Your task to perform on an android device: Go to CNN.com Image 0: 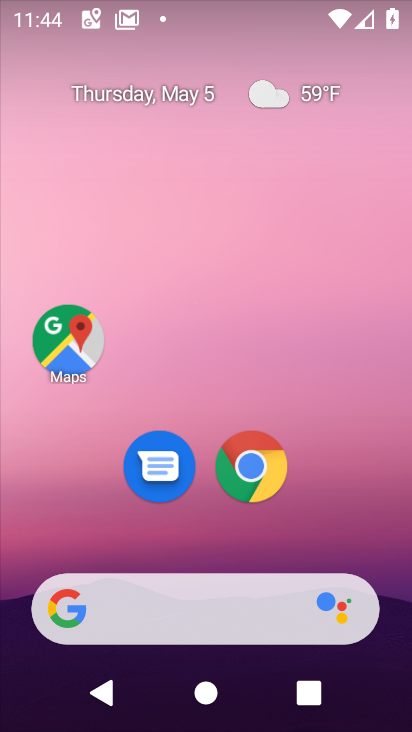
Step 0: click (264, 472)
Your task to perform on an android device: Go to CNN.com Image 1: 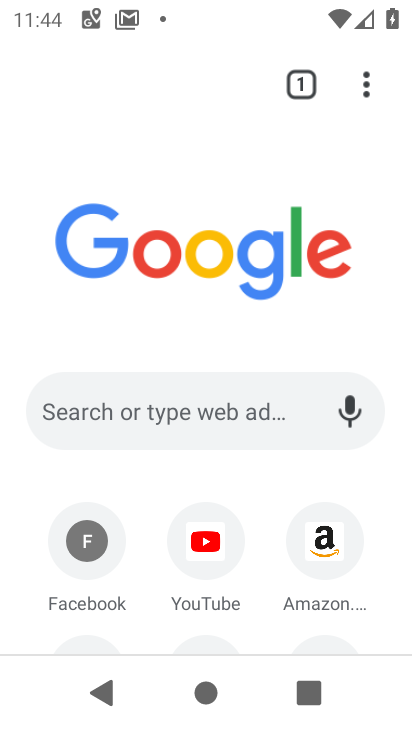
Step 1: click (214, 420)
Your task to perform on an android device: Go to CNN.com Image 2: 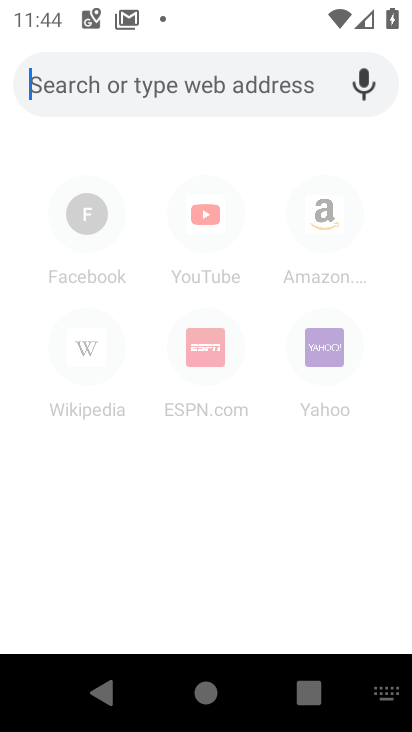
Step 2: type "CNN.com"
Your task to perform on an android device: Go to CNN.com Image 3: 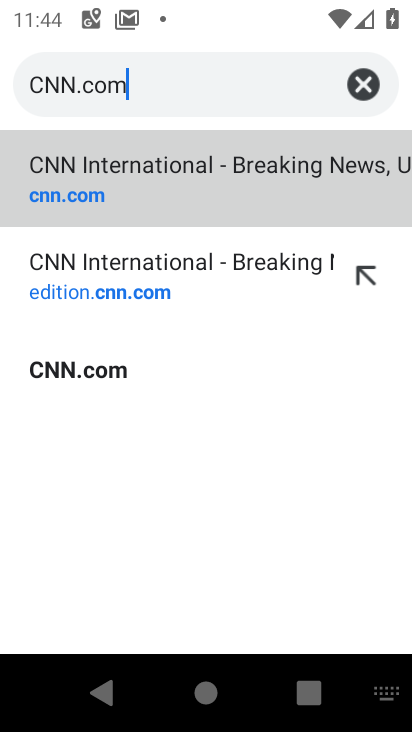
Step 3: click (76, 194)
Your task to perform on an android device: Go to CNN.com Image 4: 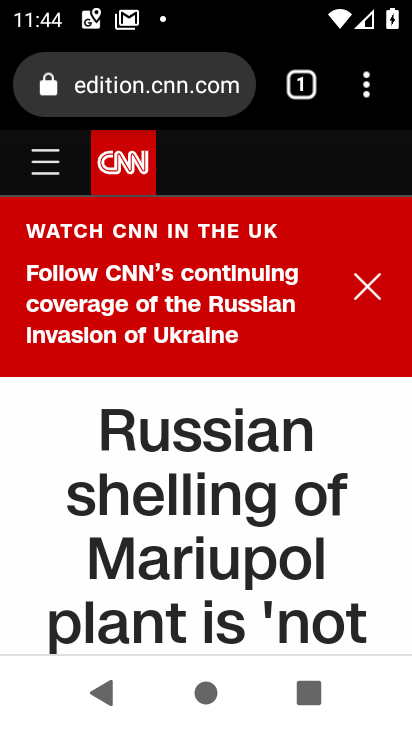
Step 4: task complete